Your task to perform on an android device: turn pop-ups off in chrome Image 0: 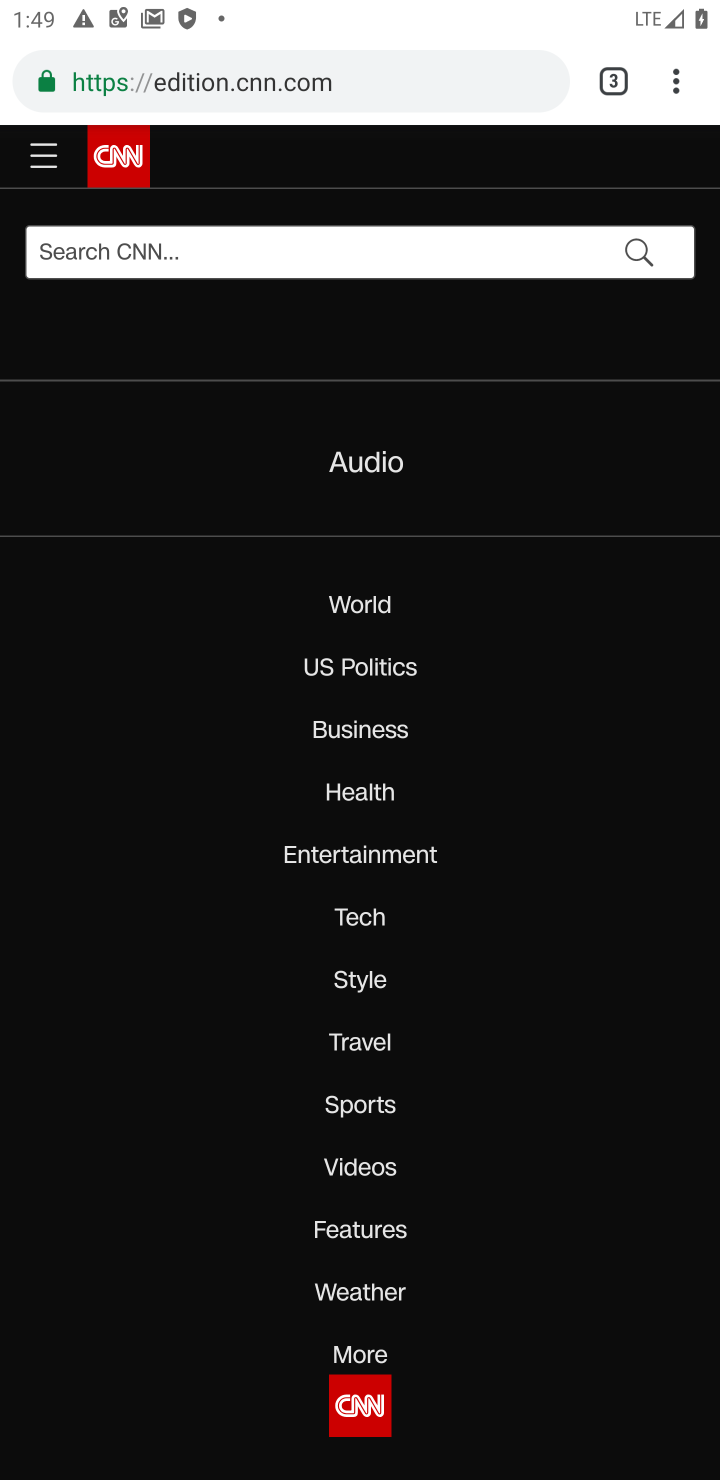
Step 0: press home button
Your task to perform on an android device: turn pop-ups off in chrome Image 1: 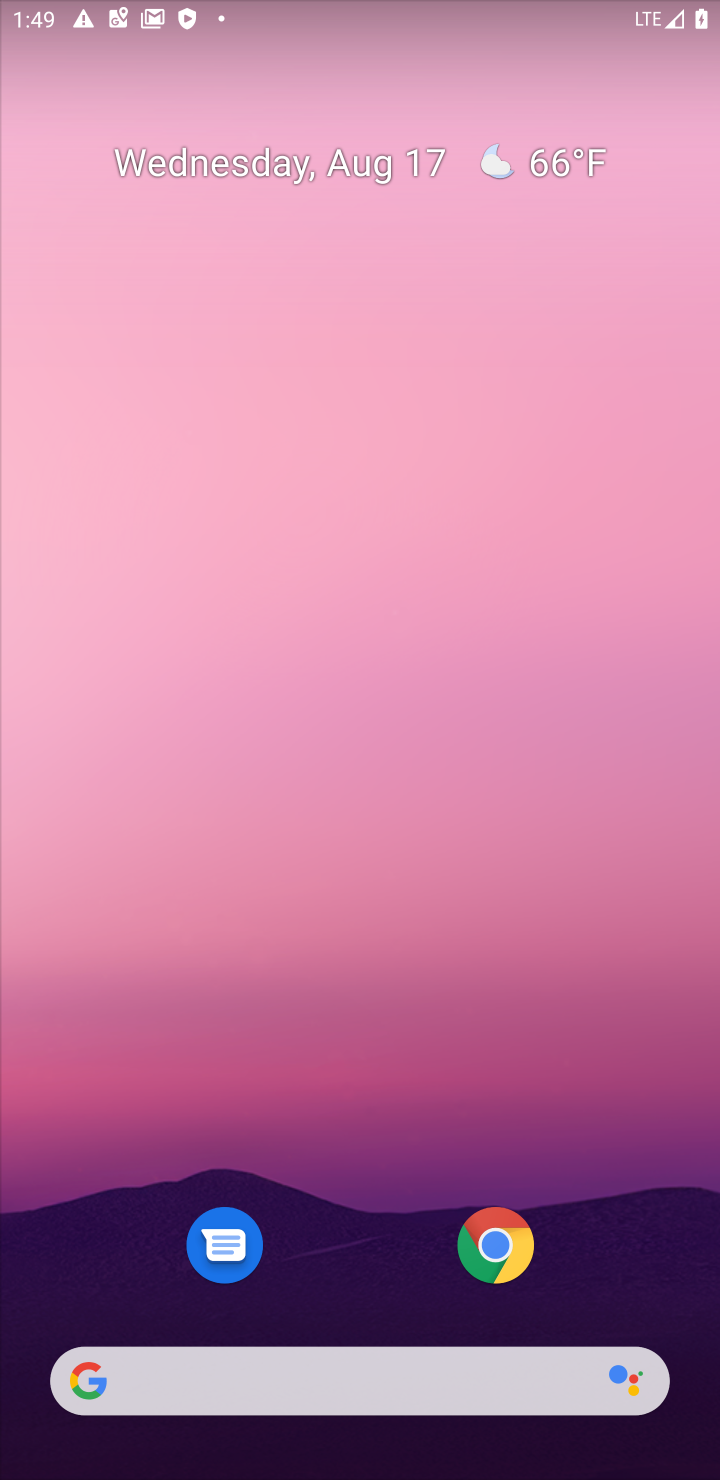
Step 1: click (509, 1239)
Your task to perform on an android device: turn pop-ups off in chrome Image 2: 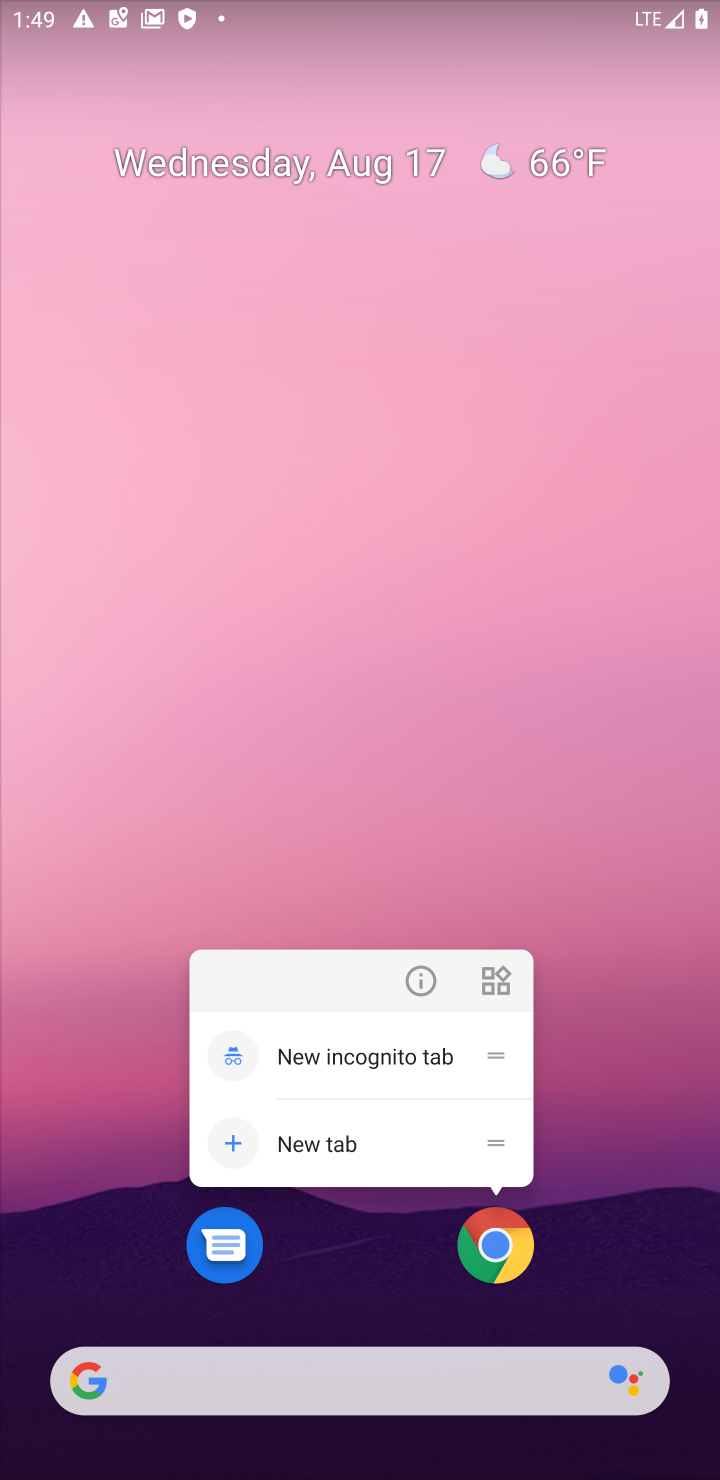
Step 2: click (492, 1256)
Your task to perform on an android device: turn pop-ups off in chrome Image 3: 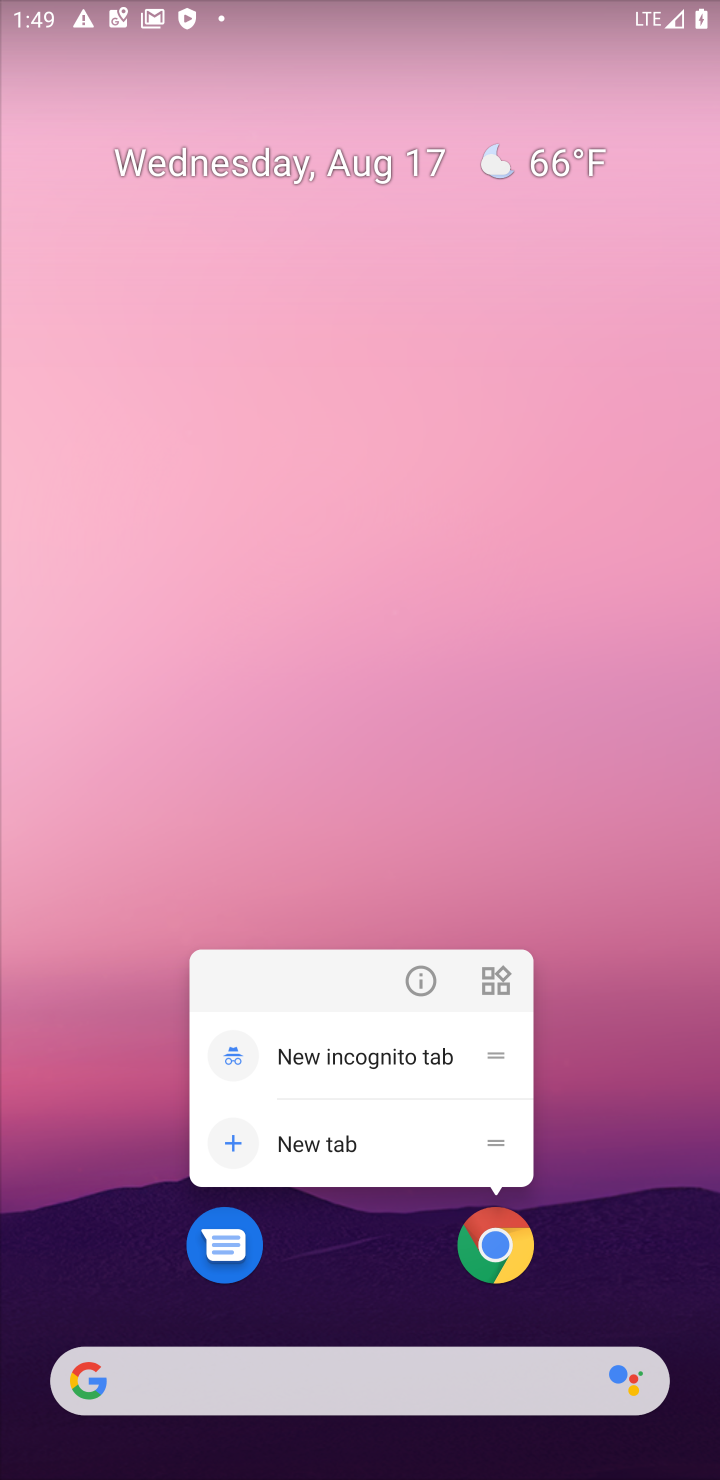
Step 3: click (492, 1256)
Your task to perform on an android device: turn pop-ups off in chrome Image 4: 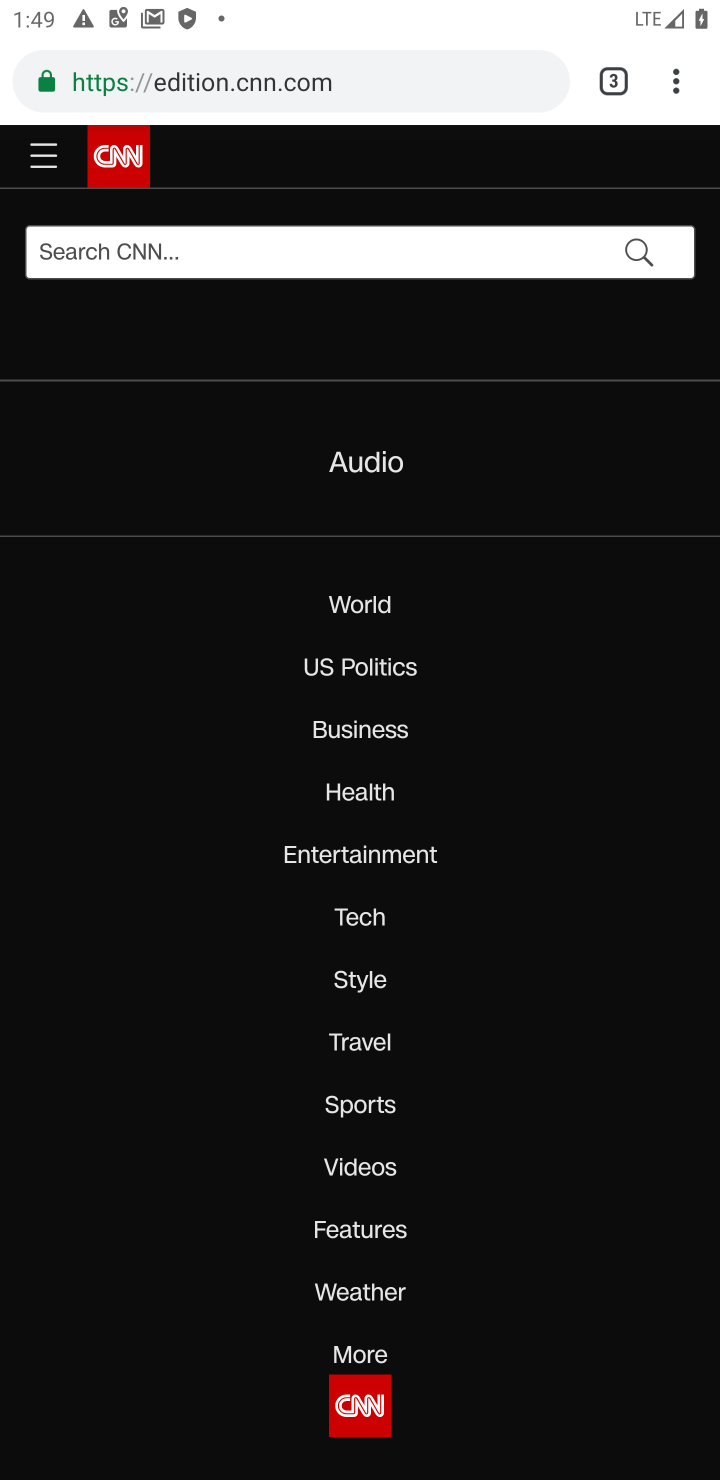
Step 4: click (677, 81)
Your task to perform on an android device: turn pop-ups off in chrome Image 5: 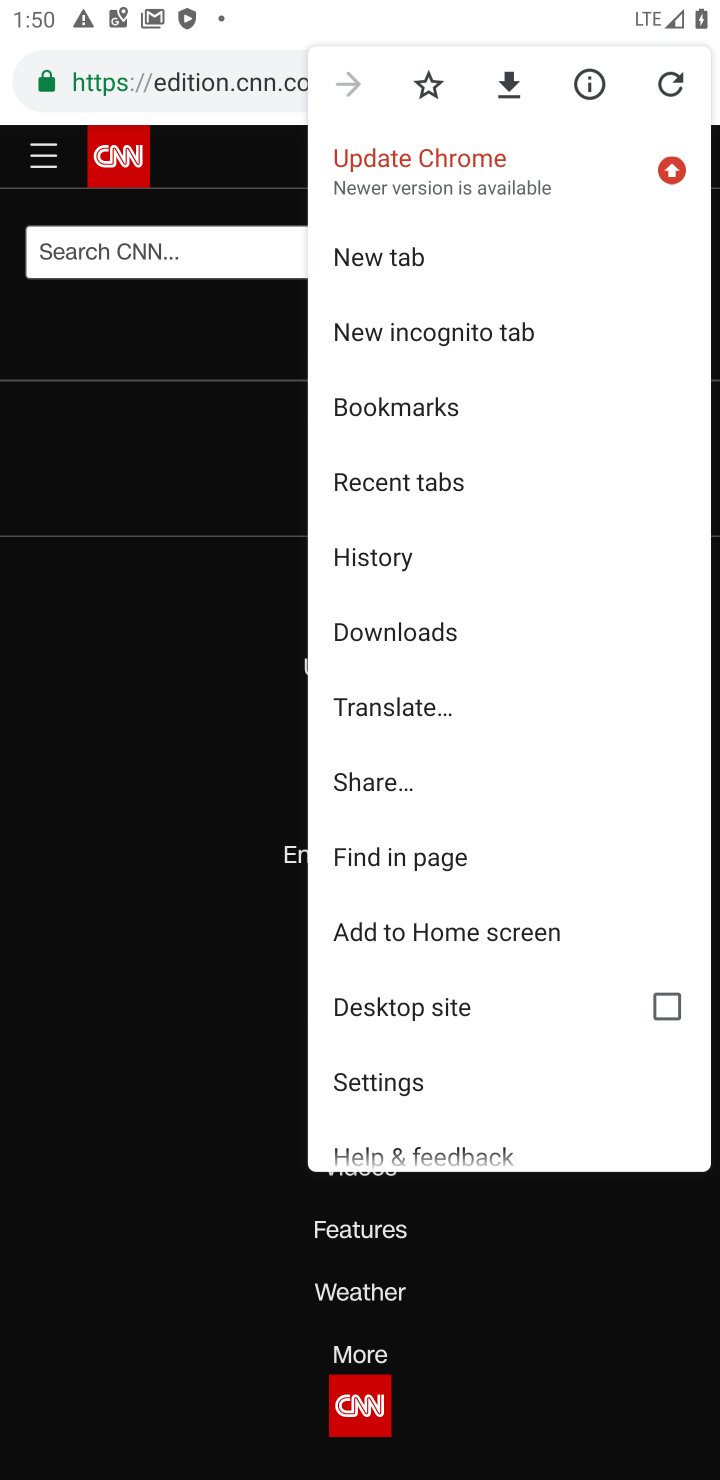
Step 5: click (395, 1087)
Your task to perform on an android device: turn pop-ups off in chrome Image 6: 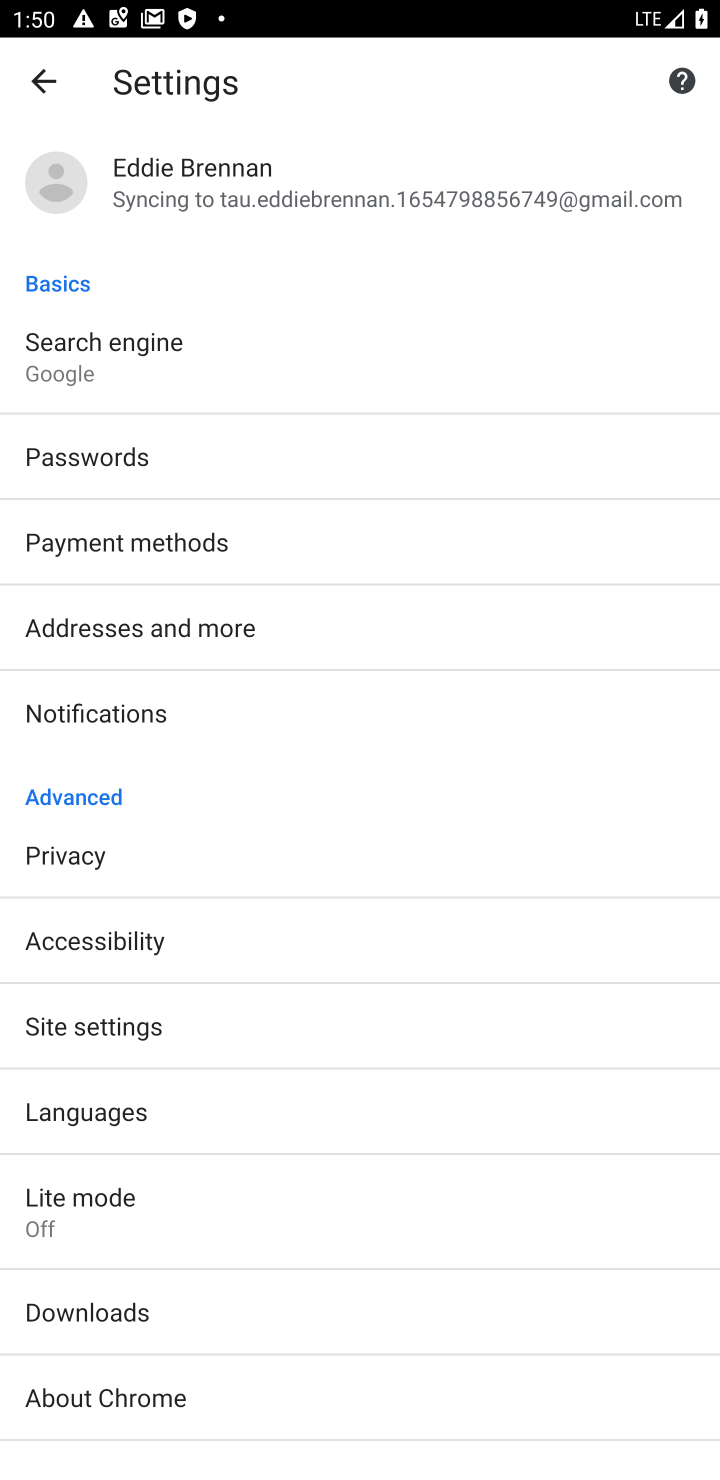
Step 6: click (138, 1023)
Your task to perform on an android device: turn pop-ups off in chrome Image 7: 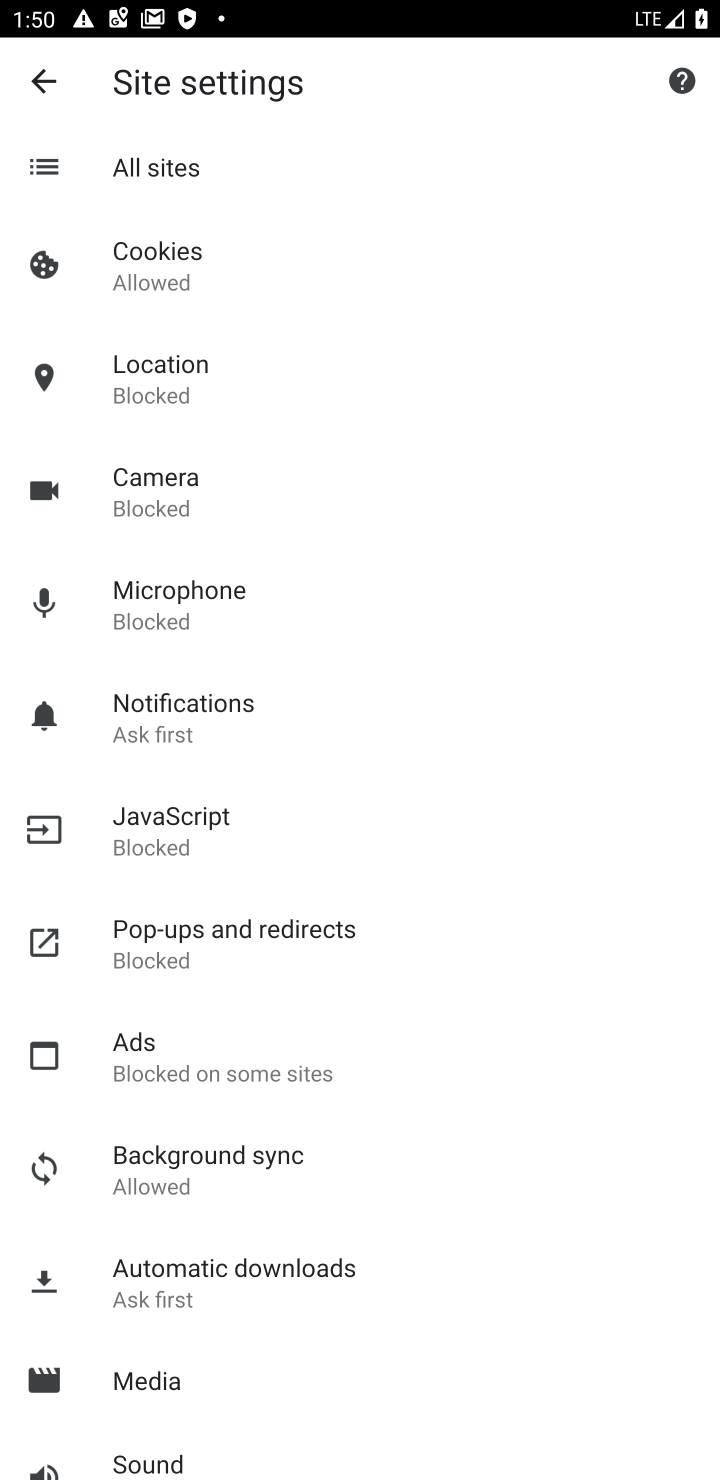
Step 7: click (172, 941)
Your task to perform on an android device: turn pop-ups off in chrome Image 8: 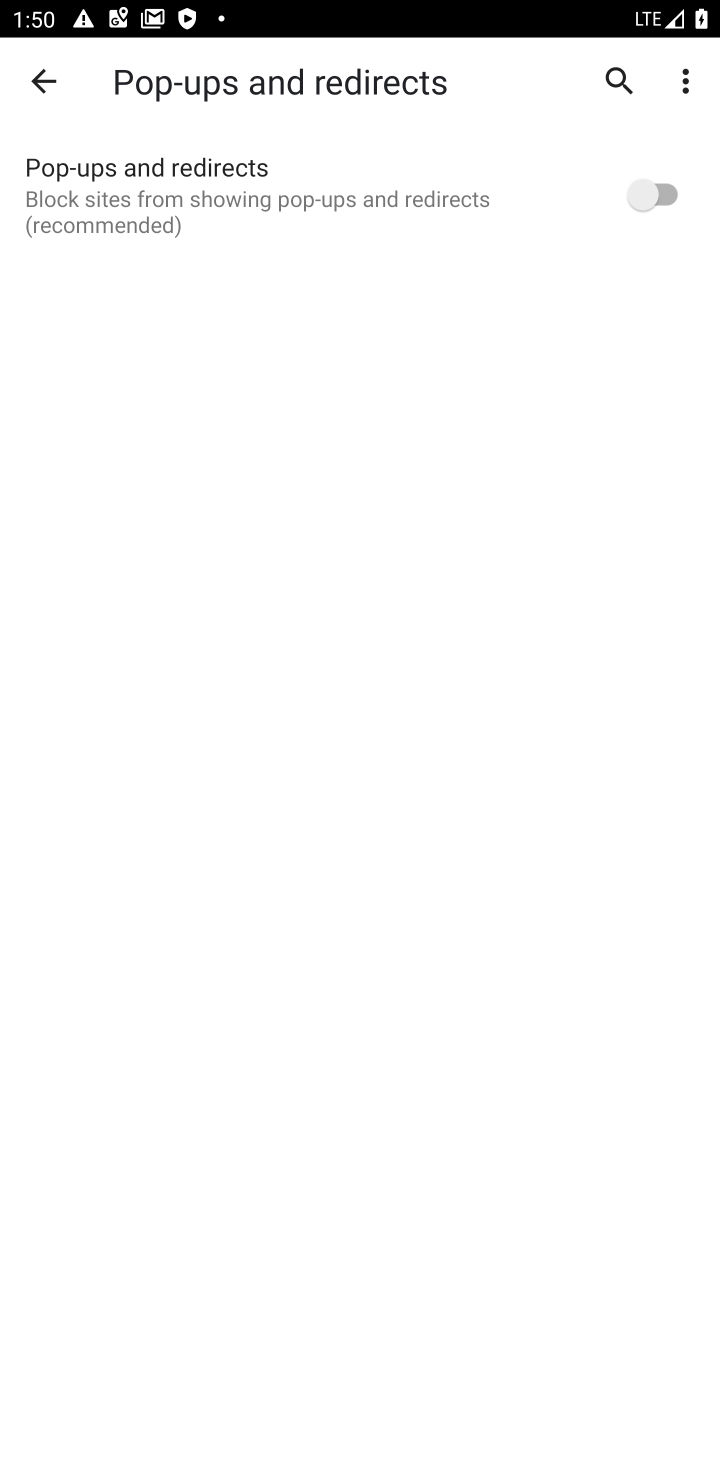
Step 8: task complete